Your task to perform on an android device: remove spam from my inbox in the gmail app Image 0: 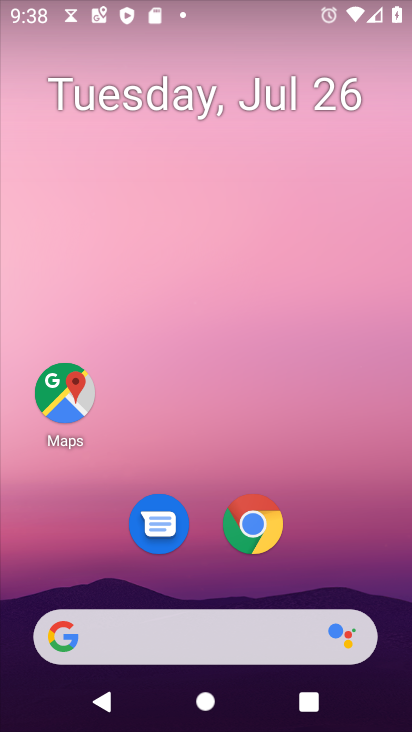
Step 0: drag from (179, 657) to (321, 224)
Your task to perform on an android device: remove spam from my inbox in the gmail app Image 1: 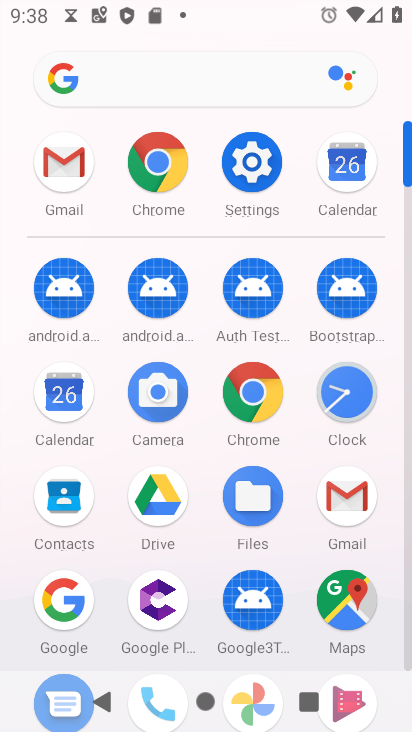
Step 1: click (344, 510)
Your task to perform on an android device: remove spam from my inbox in the gmail app Image 2: 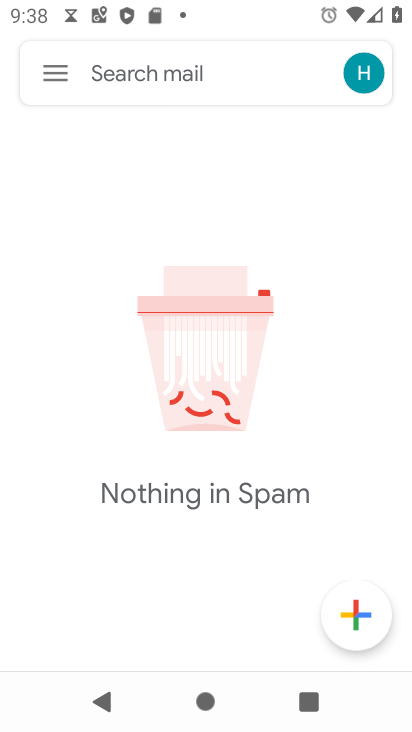
Step 2: task complete